Your task to perform on an android device: See recent photos Image 0: 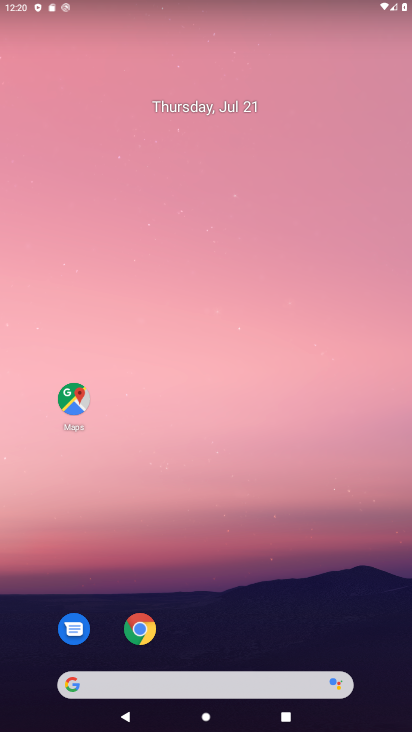
Step 0: drag from (366, 537) to (294, 46)
Your task to perform on an android device: See recent photos Image 1: 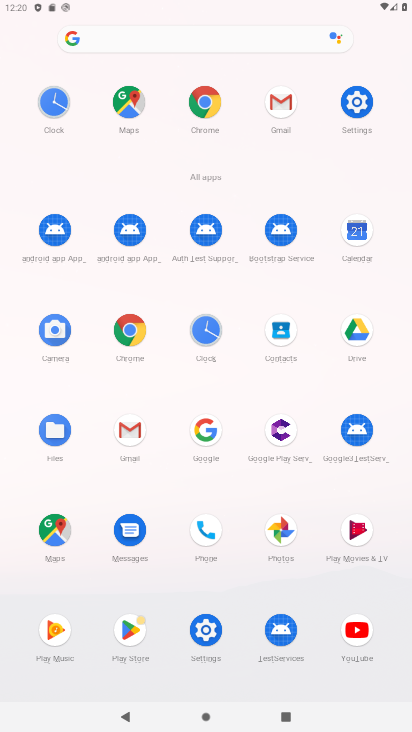
Step 1: click (279, 530)
Your task to perform on an android device: See recent photos Image 2: 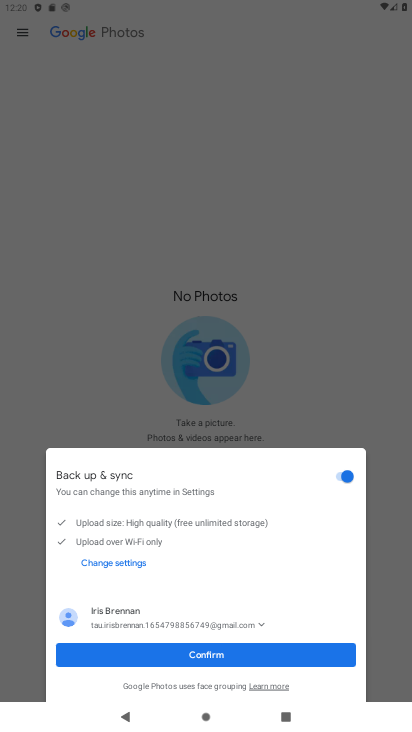
Step 2: click (239, 654)
Your task to perform on an android device: See recent photos Image 3: 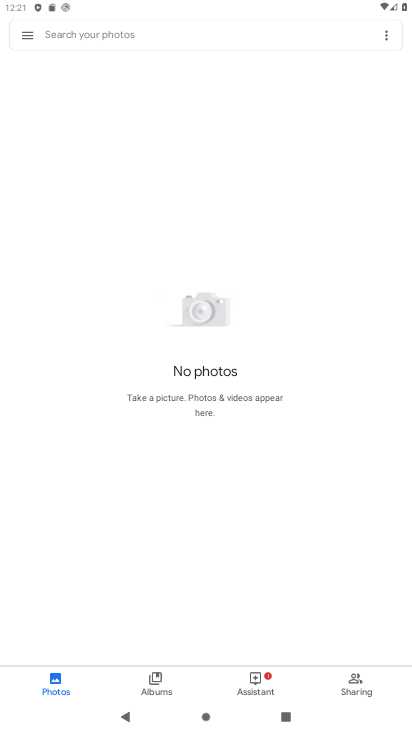
Step 3: task complete